Your task to perform on an android device: Go to display settings Image 0: 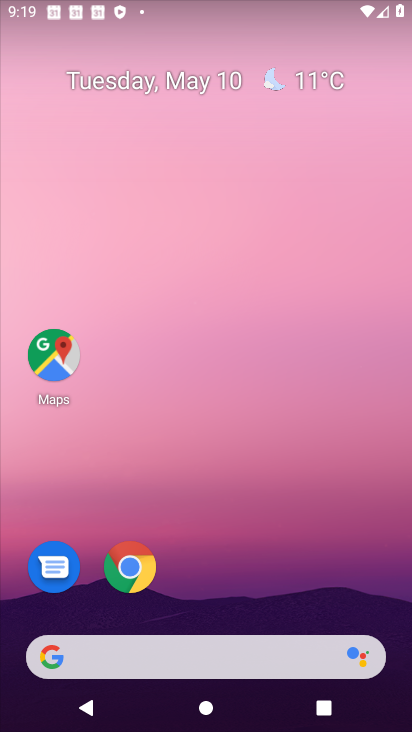
Step 0: drag from (186, 639) to (233, 211)
Your task to perform on an android device: Go to display settings Image 1: 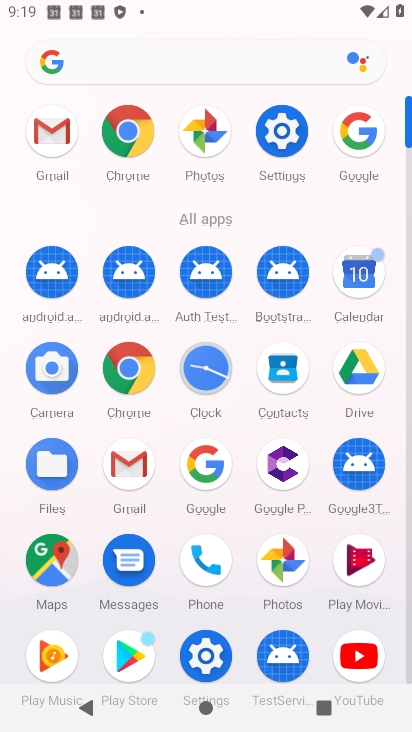
Step 1: click (288, 130)
Your task to perform on an android device: Go to display settings Image 2: 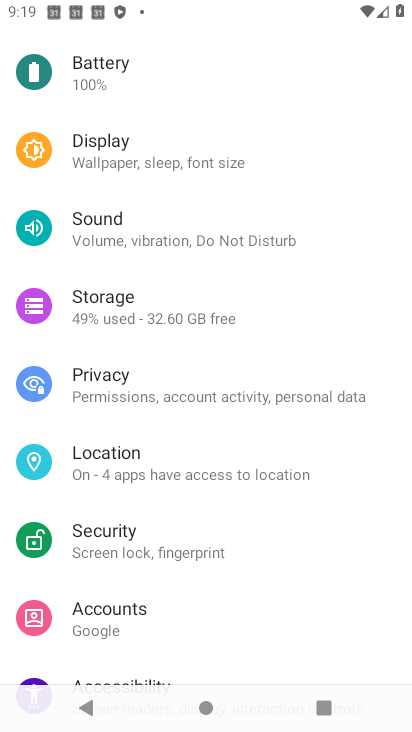
Step 2: click (131, 158)
Your task to perform on an android device: Go to display settings Image 3: 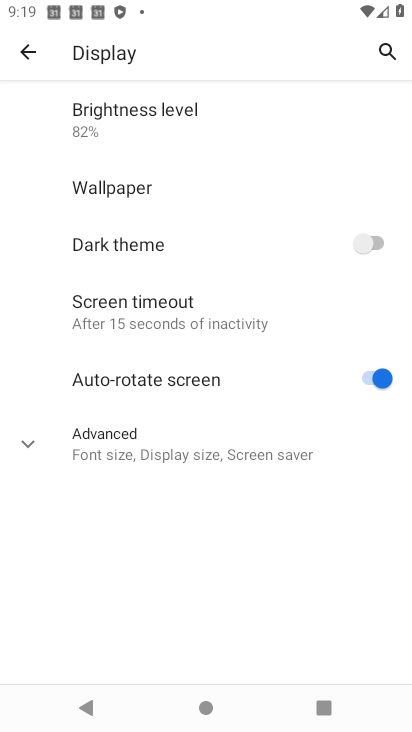
Step 3: click (31, 451)
Your task to perform on an android device: Go to display settings Image 4: 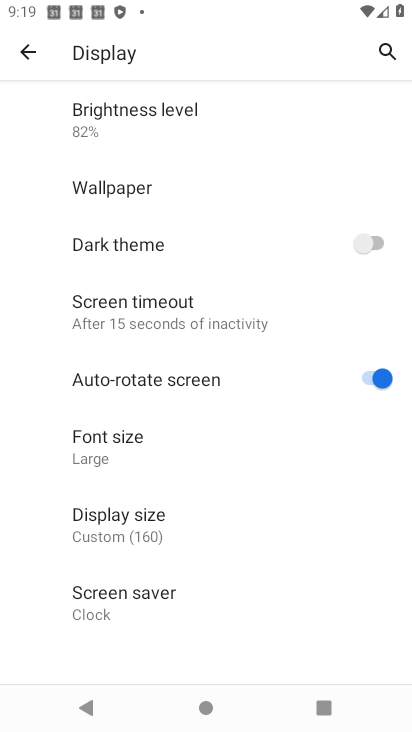
Step 4: task complete